Your task to perform on an android device: Search for macbook on ebay, select the first entry, add it to the cart, then select checkout. Image 0: 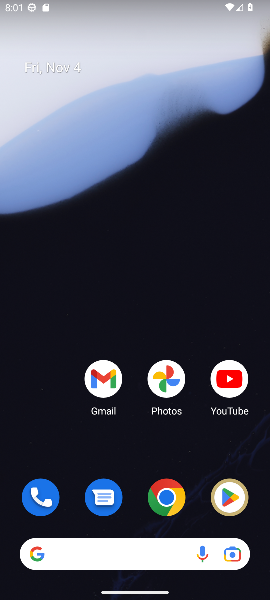
Step 0: click (165, 503)
Your task to perform on an android device: Search for macbook on ebay, select the first entry, add it to the cart, then select checkout. Image 1: 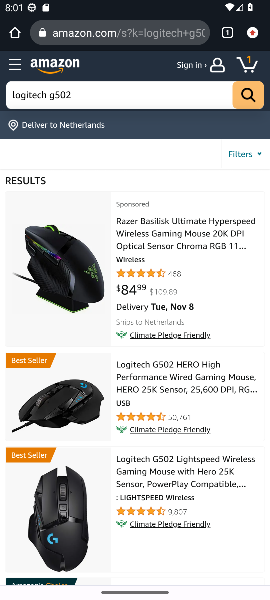
Step 1: click (91, 33)
Your task to perform on an android device: Search for macbook on ebay, select the first entry, add it to the cart, then select checkout. Image 2: 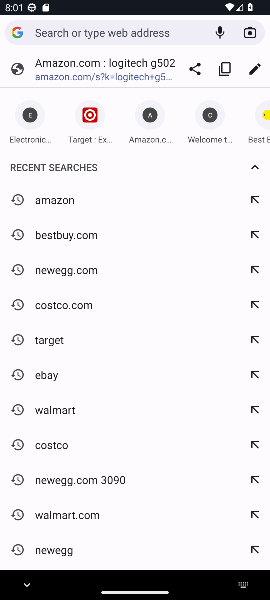
Step 2: click (43, 374)
Your task to perform on an android device: Search for macbook on ebay, select the first entry, add it to the cart, then select checkout. Image 3: 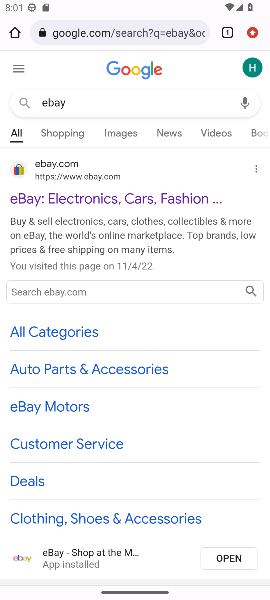
Step 3: click (50, 180)
Your task to perform on an android device: Search for macbook on ebay, select the first entry, add it to the cart, then select checkout. Image 4: 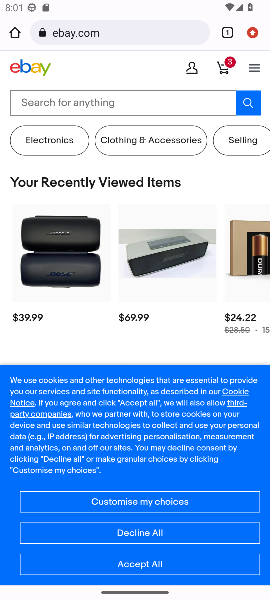
Step 4: click (99, 101)
Your task to perform on an android device: Search for macbook on ebay, select the first entry, add it to the cart, then select checkout. Image 5: 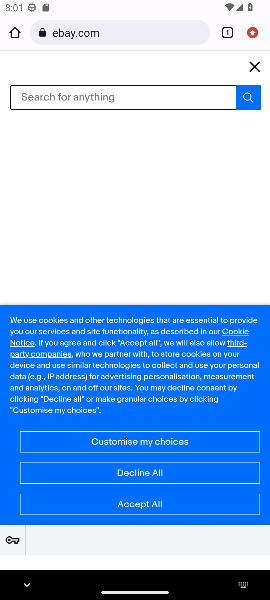
Step 5: type " macbook"
Your task to perform on an android device: Search for macbook on ebay, select the first entry, add it to the cart, then select checkout. Image 6: 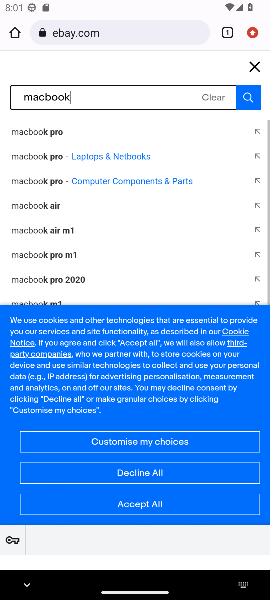
Step 6: click (245, 98)
Your task to perform on an android device: Search for macbook on ebay, select the first entry, add it to the cart, then select checkout. Image 7: 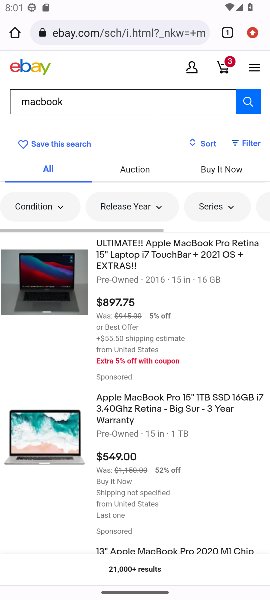
Step 7: click (51, 299)
Your task to perform on an android device: Search for macbook on ebay, select the first entry, add it to the cart, then select checkout. Image 8: 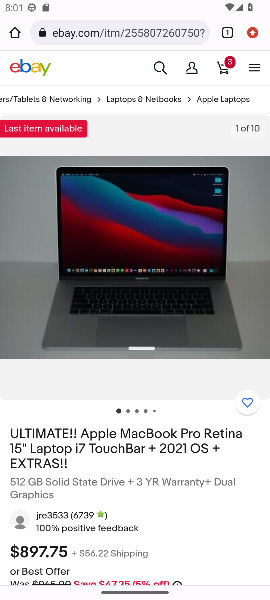
Step 8: drag from (130, 461) to (77, 104)
Your task to perform on an android device: Search for macbook on ebay, select the first entry, add it to the cart, then select checkout. Image 9: 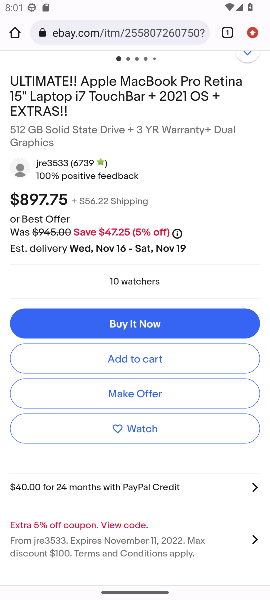
Step 9: click (124, 365)
Your task to perform on an android device: Search for macbook on ebay, select the first entry, add it to the cart, then select checkout. Image 10: 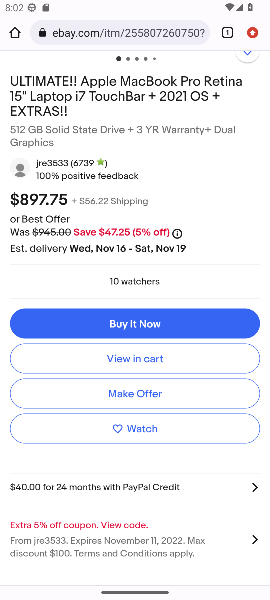
Step 10: click (128, 362)
Your task to perform on an android device: Search for macbook on ebay, select the first entry, add it to the cart, then select checkout. Image 11: 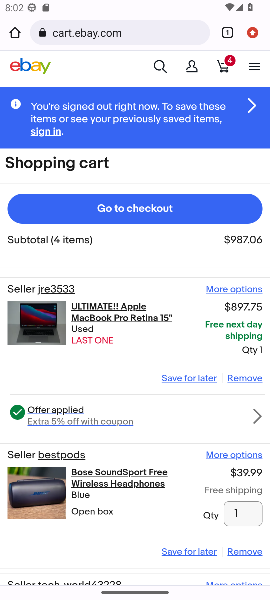
Step 11: click (124, 209)
Your task to perform on an android device: Search for macbook on ebay, select the first entry, add it to the cart, then select checkout. Image 12: 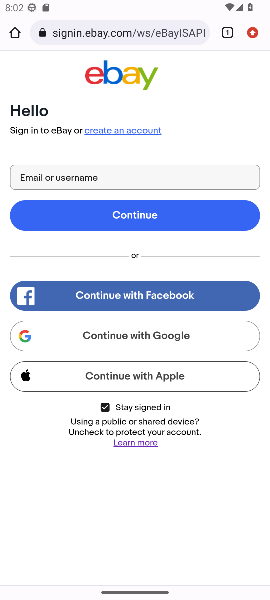
Step 12: task complete